Your task to perform on an android device: toggle improve location accuracy Image 0: 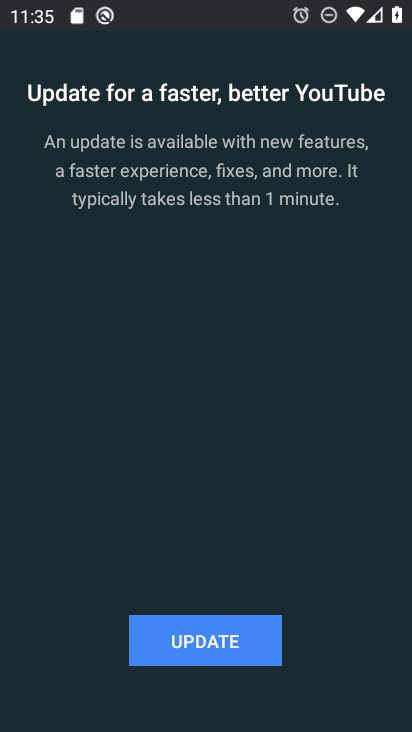
Step 0: press home button
Your task to perform on an android device: toggle improve location accuracy Image 1: 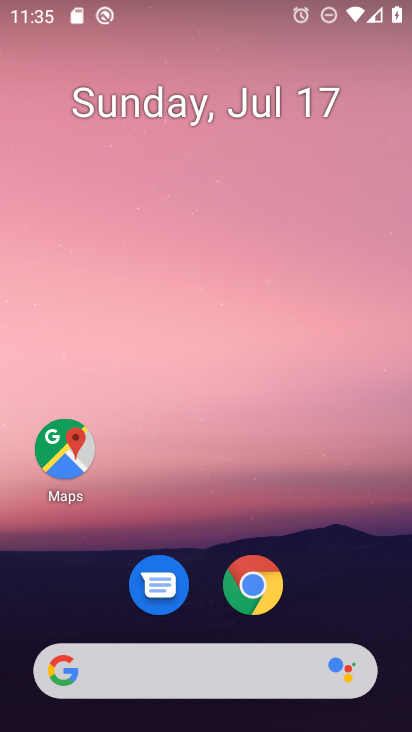
Step 1: drag from (278, 502) to (312, 0)
Your task to perform on an android device: toggle improve location accuracy Image 2: 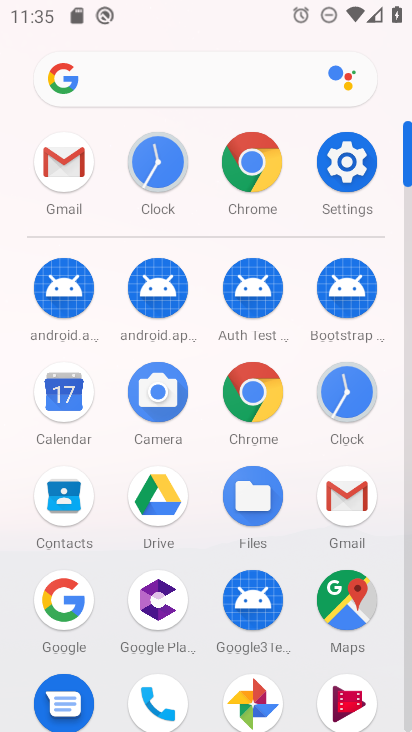
Step 2: click (341, 195)
Your task to perform on an android device: toggle improve location accuracy Image 3: 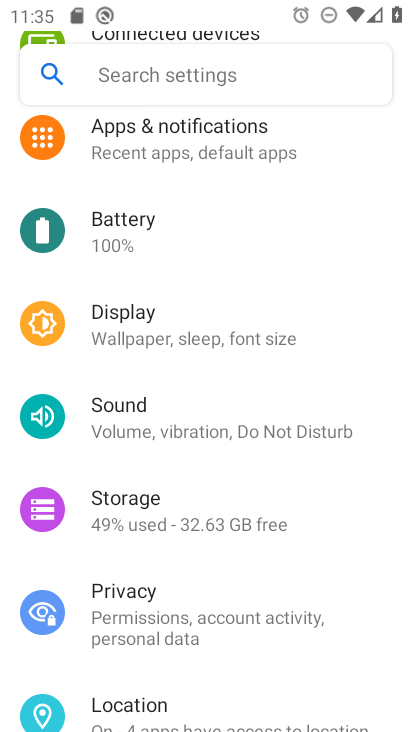
Step 3: drag from (271, 498) to (291, 141)
Your task to perform on an android device: toggle improve location accuracy Image 4: 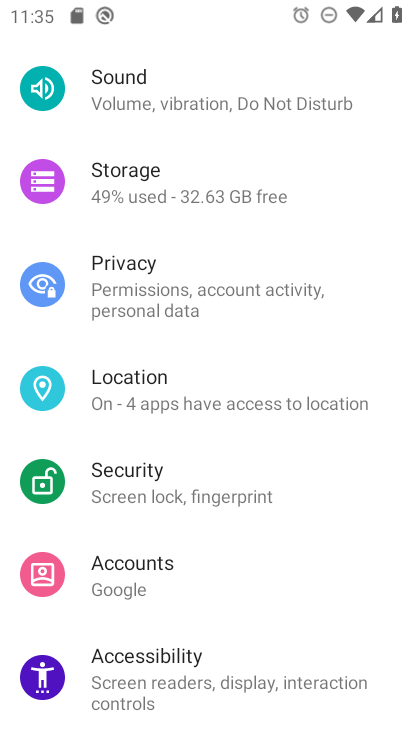
Step 4: click (249, 392)
Your task to perform on an android device: toggle improve location accuracy Image 5: 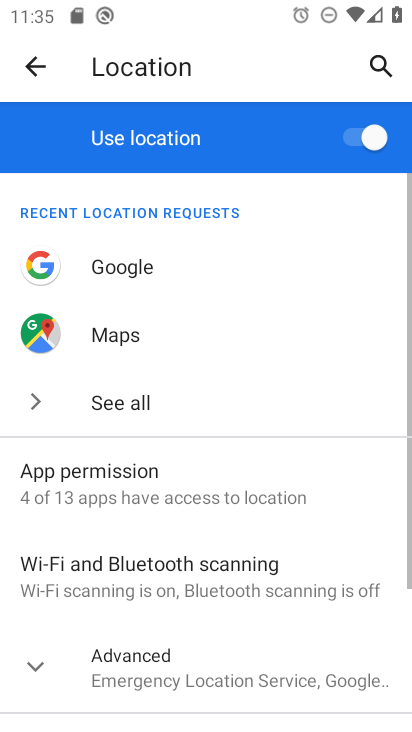
Step 5: drag from (223, 478) to (272, 120)
Your task to perform on an android device: toggle improve location accuracy Image 6: 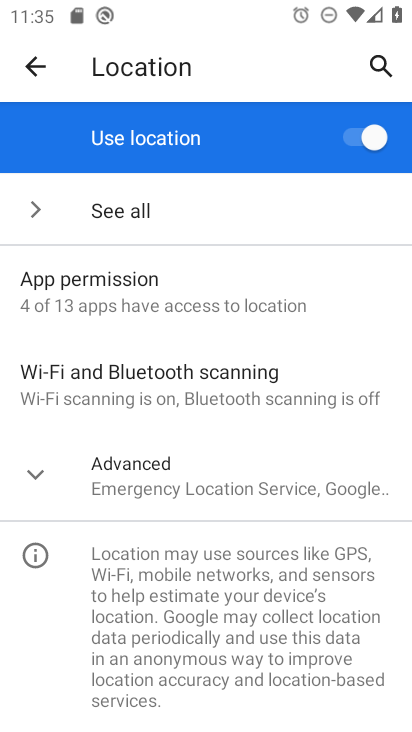
Step 6: click (33, 471)
Your task to perform on an android device: toggle improve location accuracy Image 7: 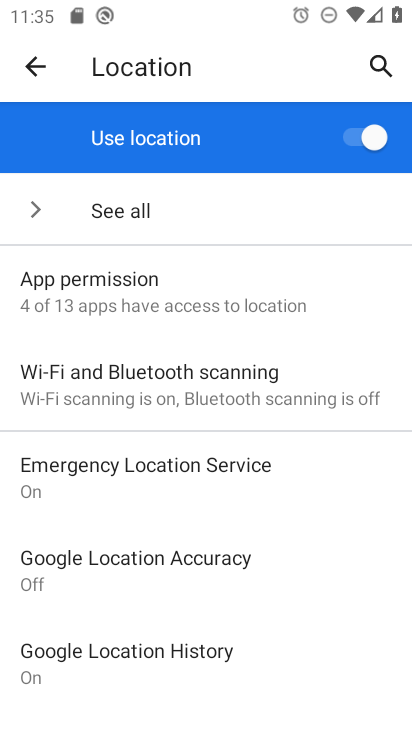
Step 7: click (134, 573)
Your task to perform on an android device: toggle improve location accuracy Image 8: 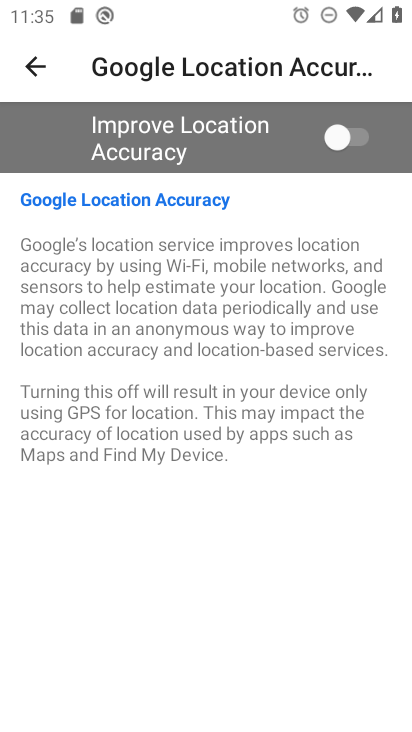
Step 8: click (359, 133)
Your task to perform on an android device: toggle improve location accuracy Image 9: 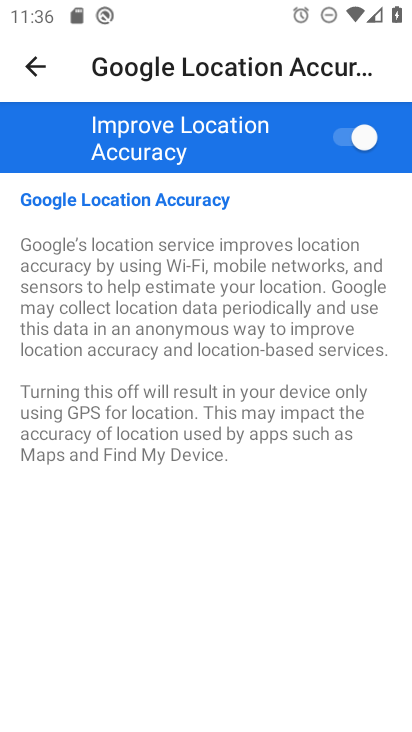
Step 9: task complete